Your task to perform on an android device: open app "Speedtest by Ookla" (install if not already installed) Image 0: 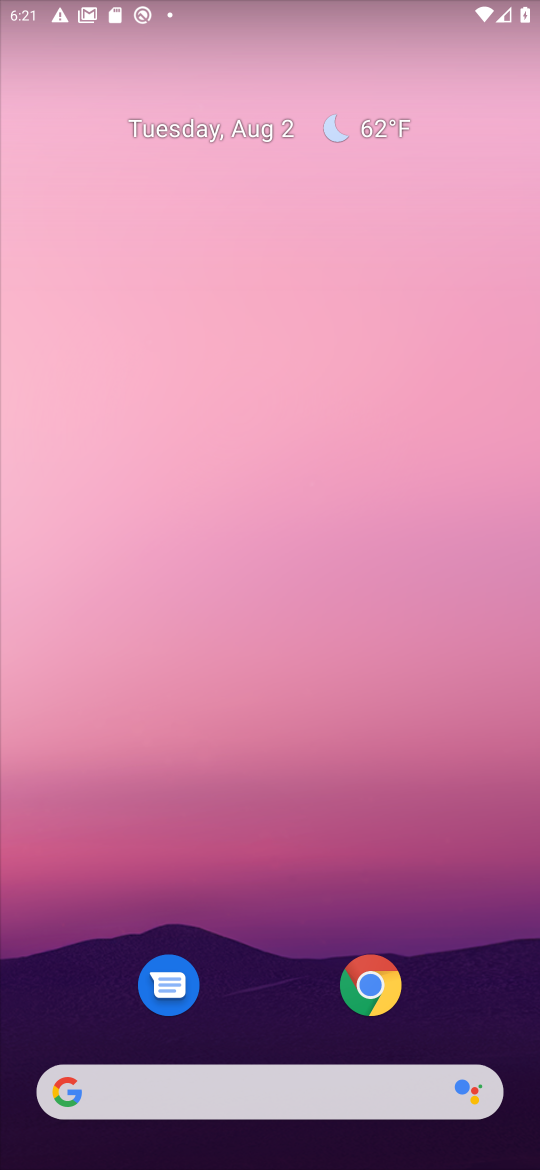
Step 0: drag from (258, 989) to (362, 170)
Your task to perform on an android device: open app "Speedtest by Ookla" (install if not already installed) Image 1: 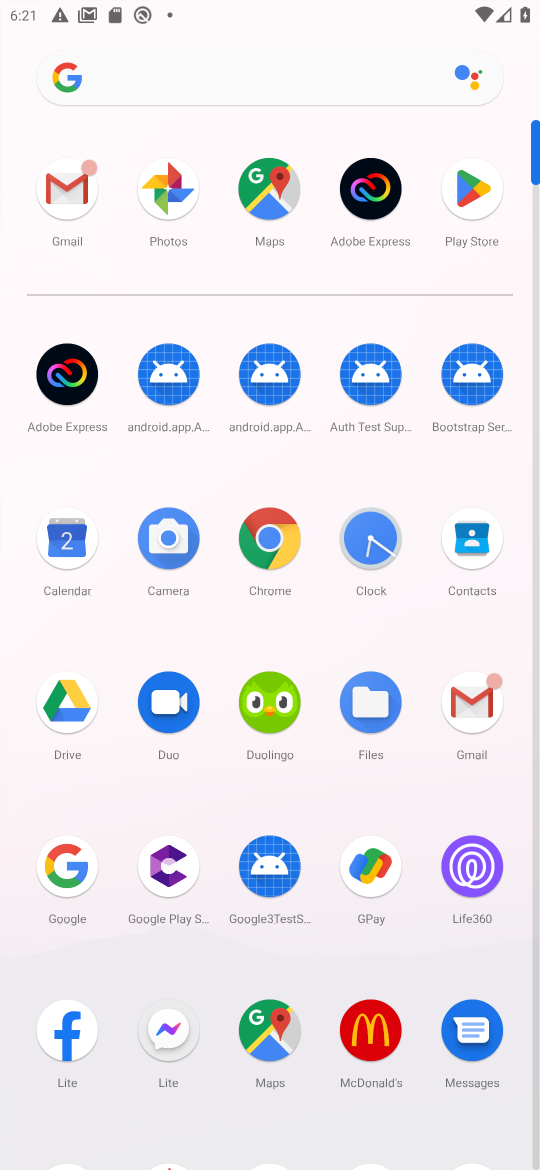
Step 1: click (458, 173)
Your task to perform on an android device: open app "Speedtest by Ookla" (install if not already installed) Image 2: 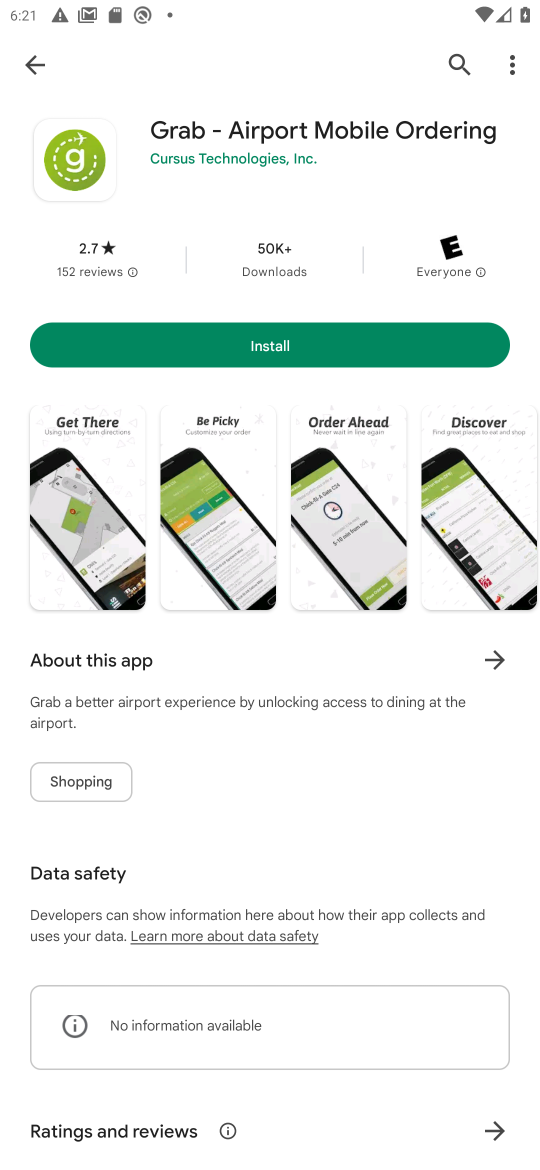
Step 2: click (471, 63)
Your task to perform on an android device: open app "Speedtest by Ookla" (install if not already installed) Image 3: 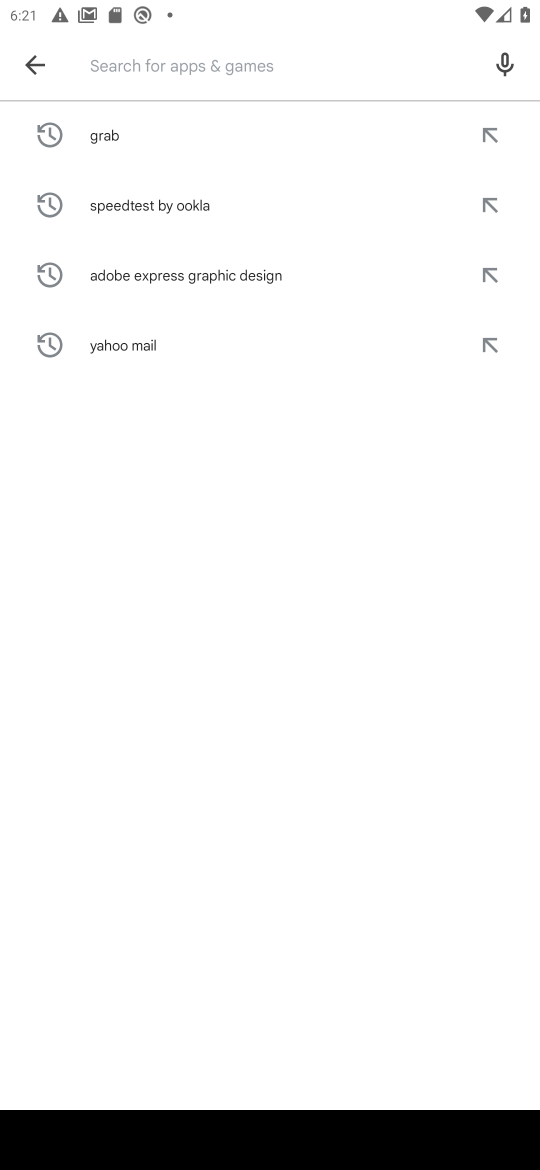
Step 3: type "Speedtest by Ookla"
Your task to perform on an android device: open app "Speedtest by Ookla" (install if not already installed) Image 4: 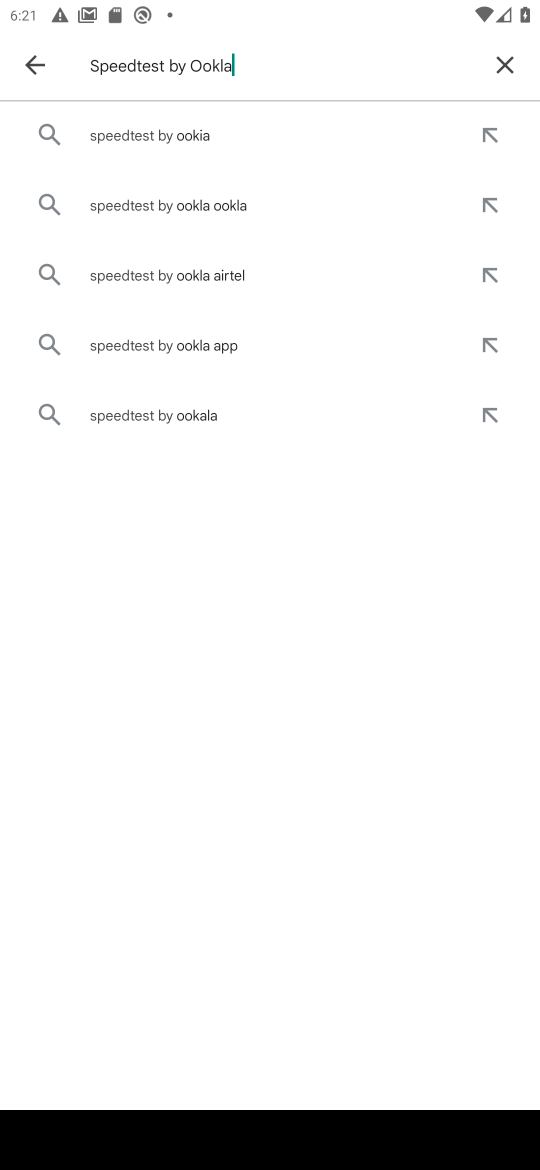
Step 4: type ""
Your task to perform on an android device: open app "Speedtest by Ookla" (install if not already installed) Image 5: 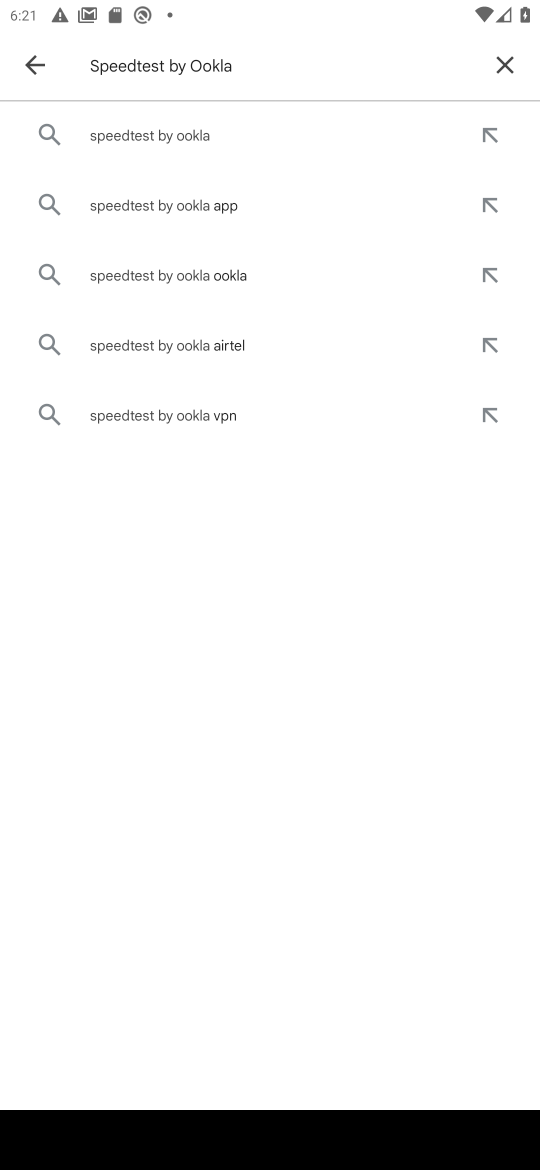
Step 5: click (203, 142)
Your task to perform on an android device: open app "Speedtest by Ookla" (install if not already installed) Image 6: 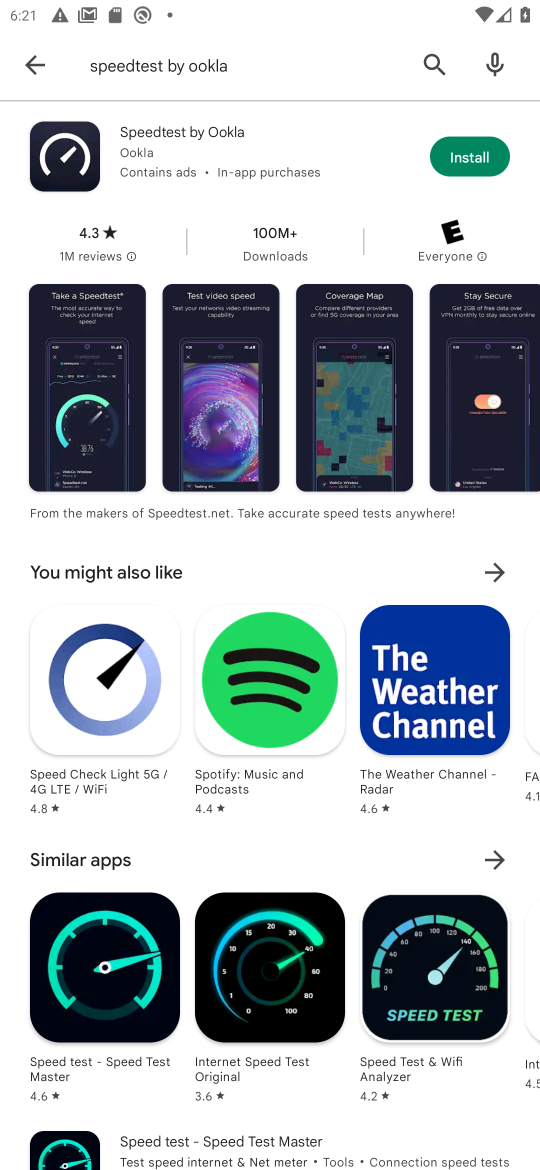
Step 6: click (468, 168)
Your task to perform on an android device: open app "Speedtest by Ookla" (install if not already installed) Image 7: 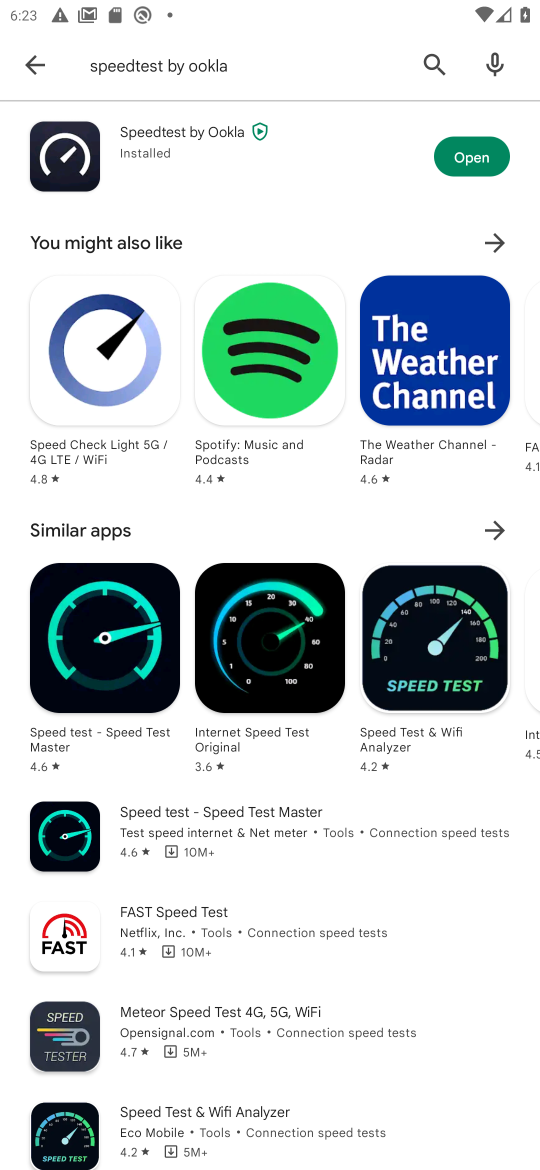
Step 7: click (492, 164)
Your task to perform on an android device: open app "Speedtest by Ookla" (install if not already installed) Image 8: 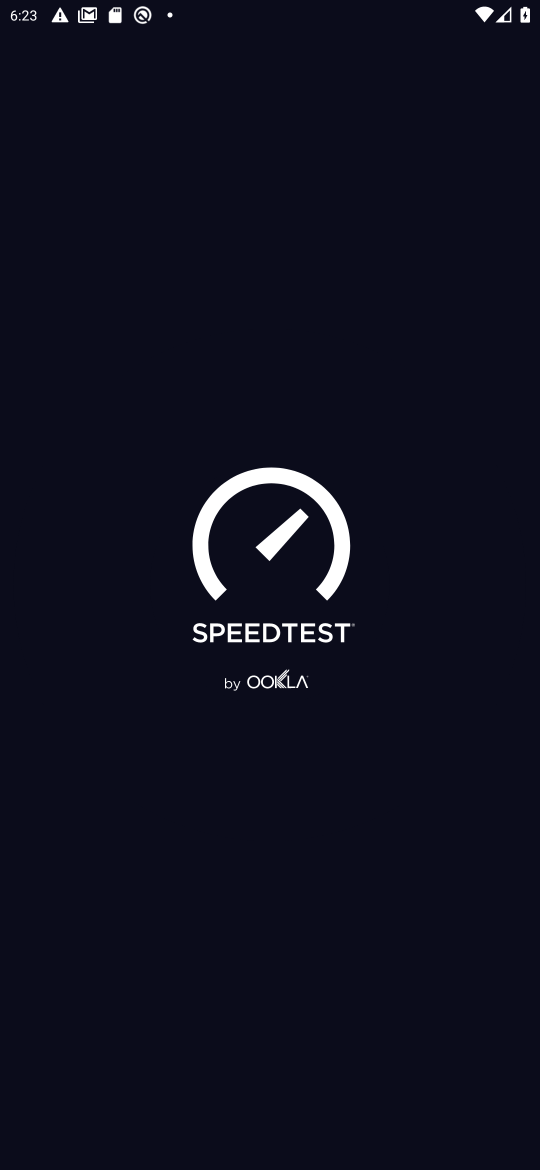
Step 8: task complete